Your task to perform on an android device: toggle notifications settings in the gmail app Image 0: 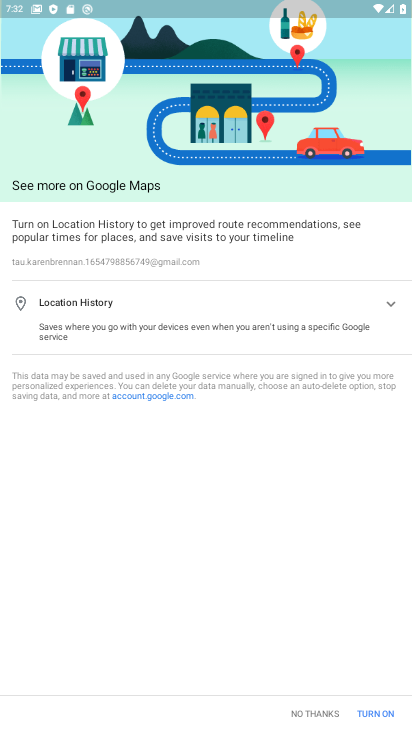
Step 0: press home button
Your task to perform on an android device: toggle notifications settings in the gmail app Image 1: 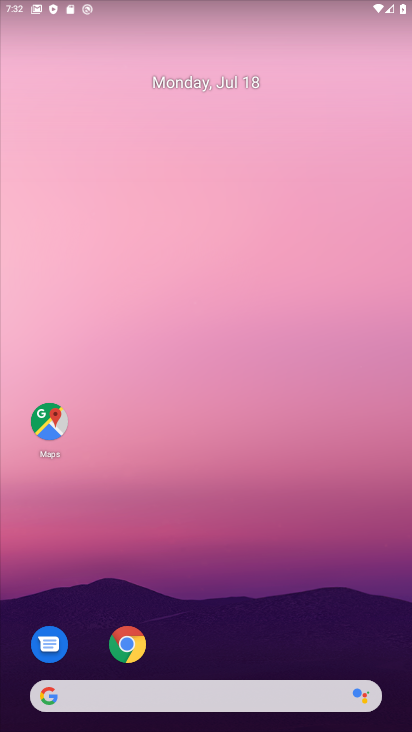
Step 1: drag from (199, 696) to (383, 347)
Your task to perform on an android device: toggle notifications settings in the gmail app Image 2: 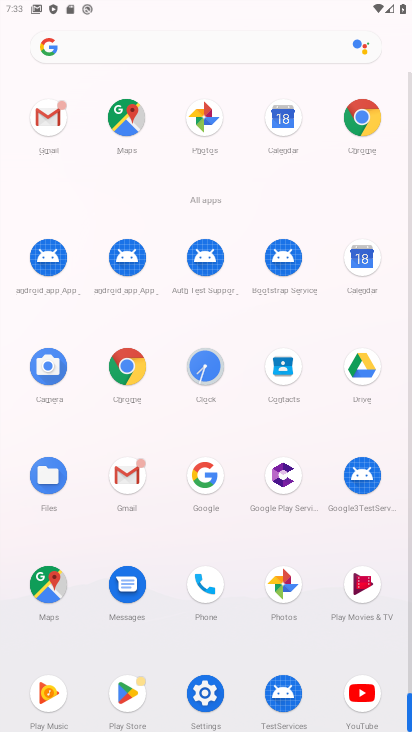
Step 2: click (126, 479)
Your task to perform on an android device: toggle notifications settings in the gmail app Image 3: 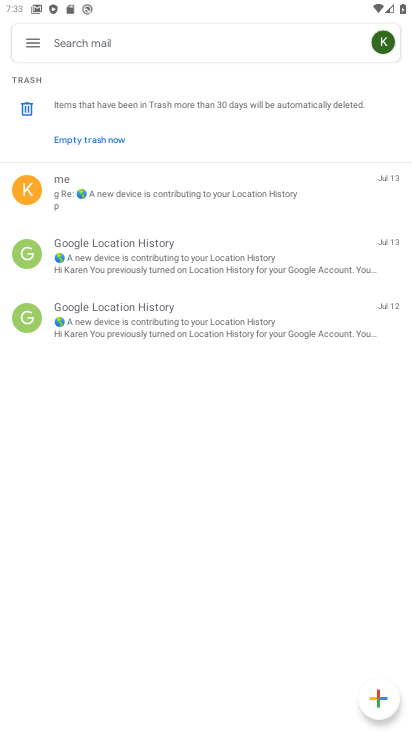
Step 3: click (45, 47)
Your task to perform on an android device: toggle notifications settings in the gmail app Image 4: 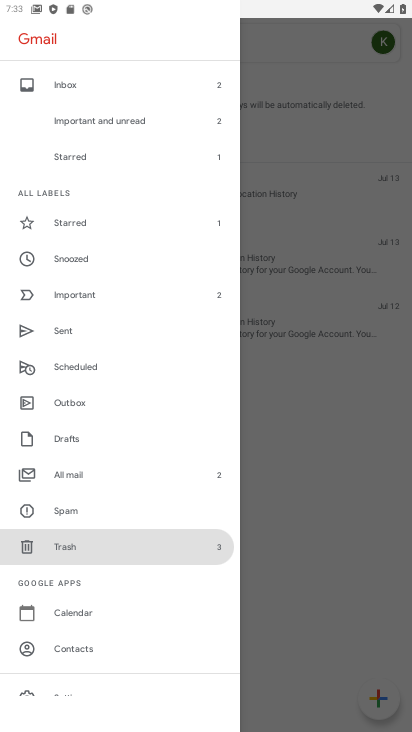
Step 4: drag from (105, 636) to (233, 307)
Your task to perform on an android device: toggle notifications settings in the gmail app Image 5: 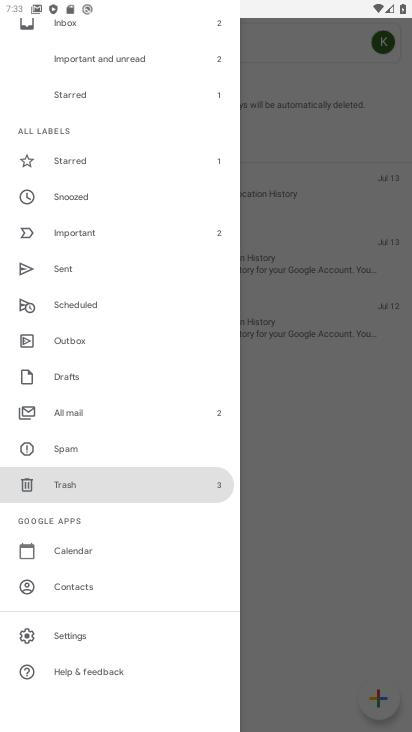
Step 5: click (71, 632)
Your task to perform on an android device: toggle notifications settings in the gmail app Image 6: 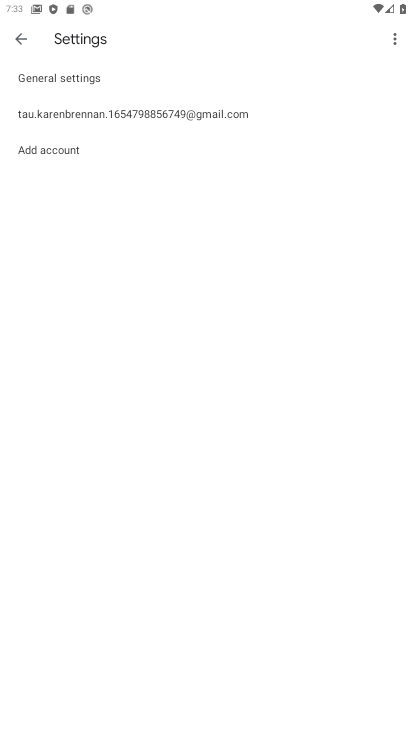
Step 6: click (205, 114)
Your task to perform on an android device: toggle notifications settings in the gmail app Image 7: 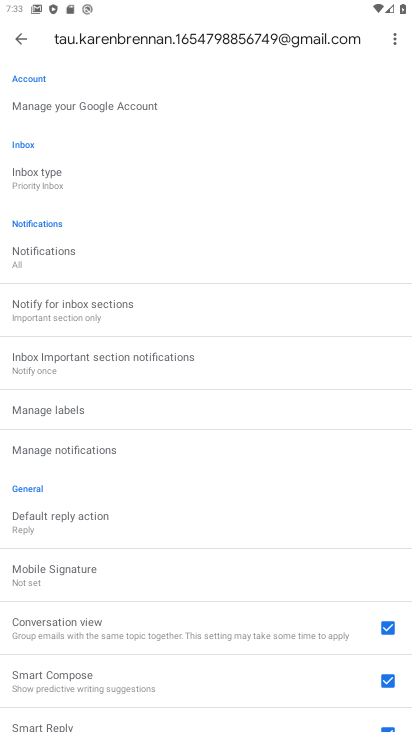
Step 7: click (44, 256)
Your task to perform on an android device: toggle notifications settings in the gmail app Image 8: 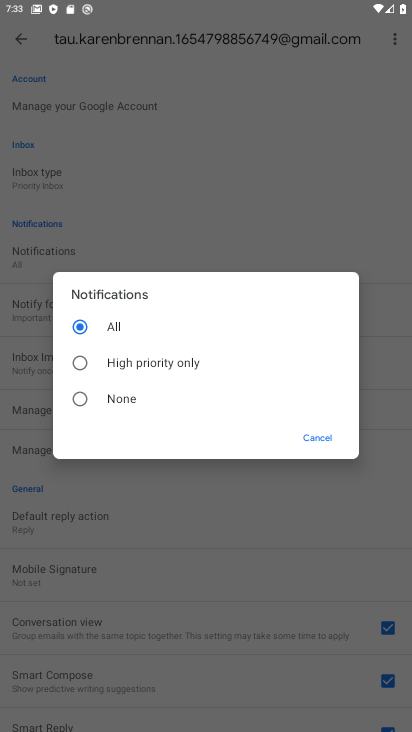
Step 8: click (80, 399)
Your task to perform on an android device: toggle notifications settings in the gmail app Image 9: 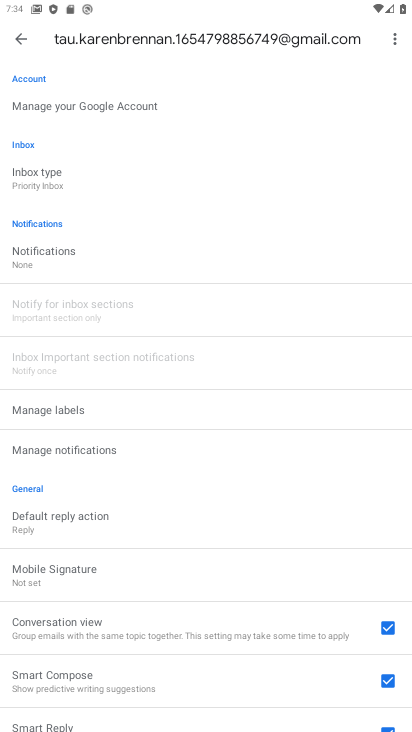
Step 9: task complete